Your task to perform on an android device: turn on the 24-hour format for clock Image 0: 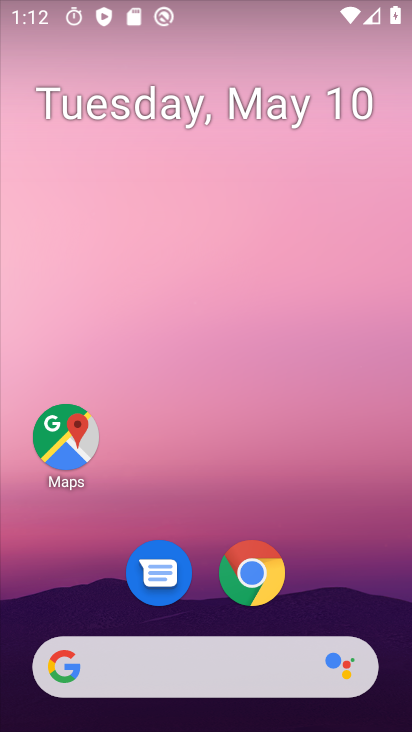
Step 0: drag from (334, 479) to (330, 80)
Your task to perform on an android device: turn on the 24-hour format for clock Image 1: 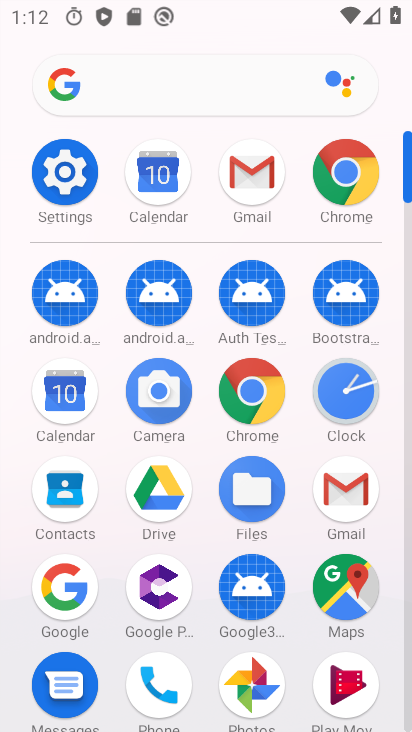
Step 1: click (356, 404)
Your task to perform on an android device: turn on the 24-hour format for clock Image 2: 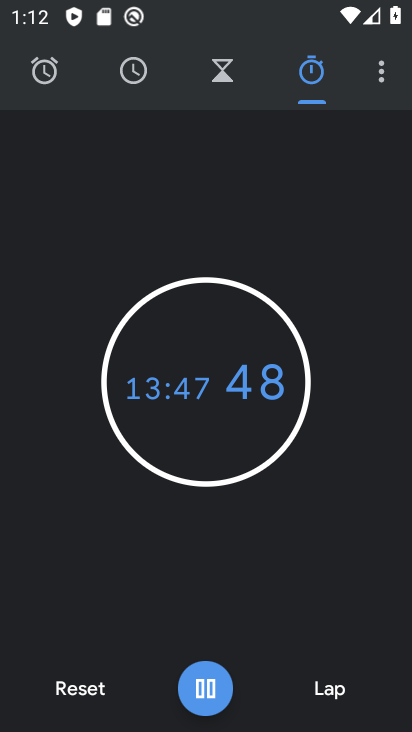
Step 2: click (384, 76)
Your task to perform on an android device: turn on the 24-hour format for clock Image 3: 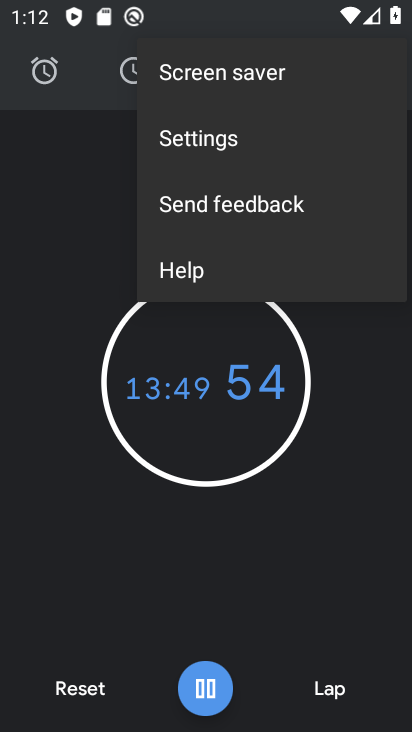
Step 3: click (233, 139)
Your task to perform on an android device: turn on the 24-hour format for clock Image 4: 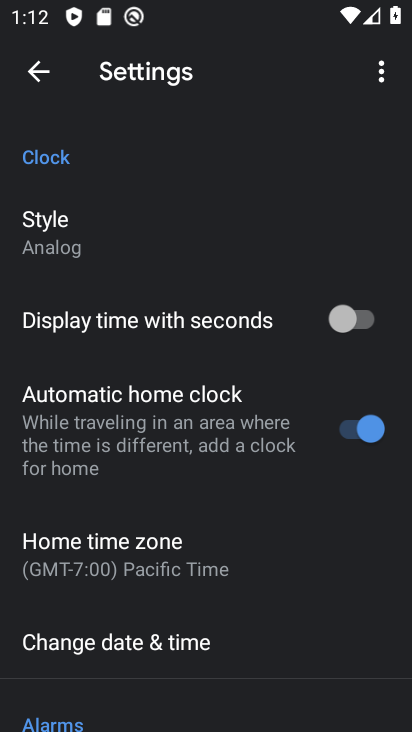
Step 4: click (121, 635)
Your task to perform on an android device: turn on the 24-hour format for clock Image 5: 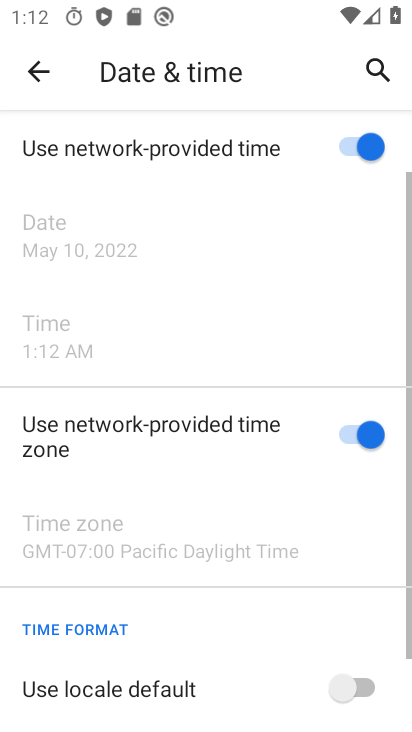
Step 5: task complete